Your task to perform on an android device: toggle sleep mode Image 0: 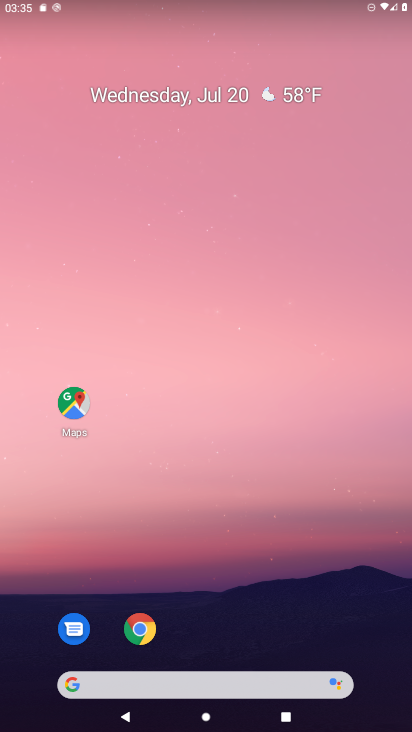
Step 0: drag from (280, 411) to (285, 272)
Your task to perform on an android device: toggle sleep mode Image 1: 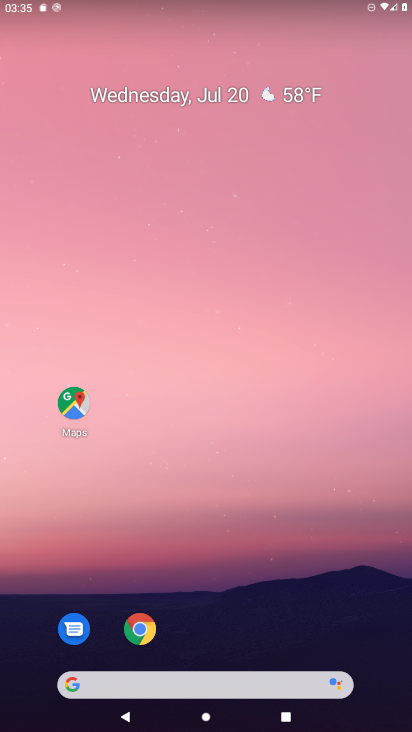
Step 1: drag from (317, 555) to (305, 11)
Your task to perform on an android device: toggle sleep mode Image 2: 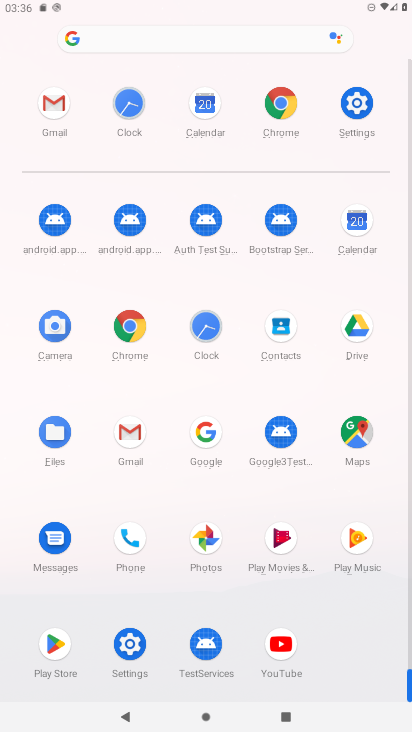
Step 2: click (341, 100)
Your task to perform on an android device: toggle sleep mode Image 3: 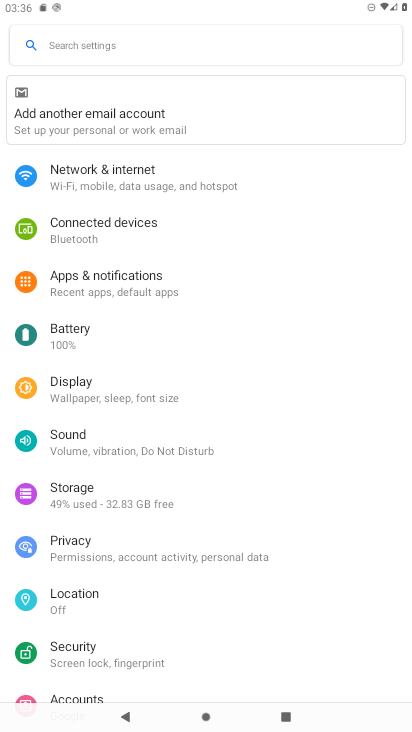
Step 3: click (101, 383)
Your task to perform on an android device: toggle sleep mode Image 4: 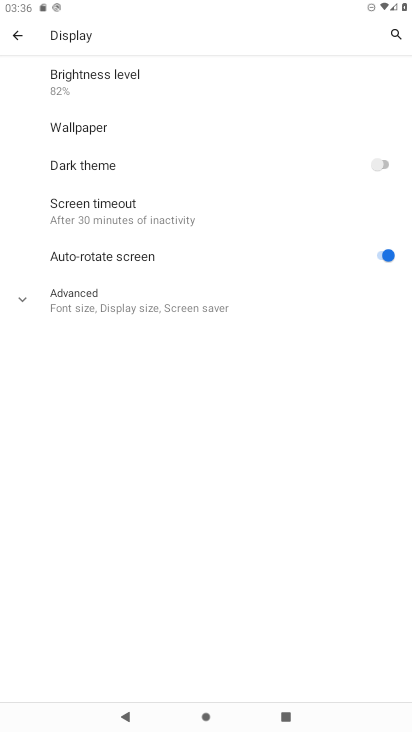
Step 4: task complete